Your task to perform on an android device: Go to Android settings Image 0: 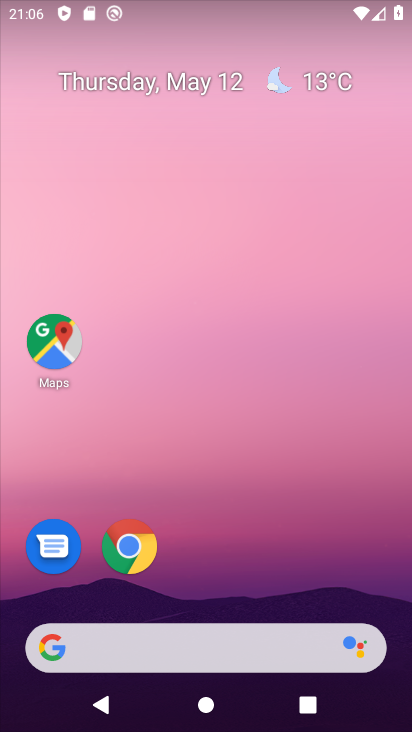
Step 0: click (147, 543)
Your task to perform on an android device: Go to Android settings Image 1: 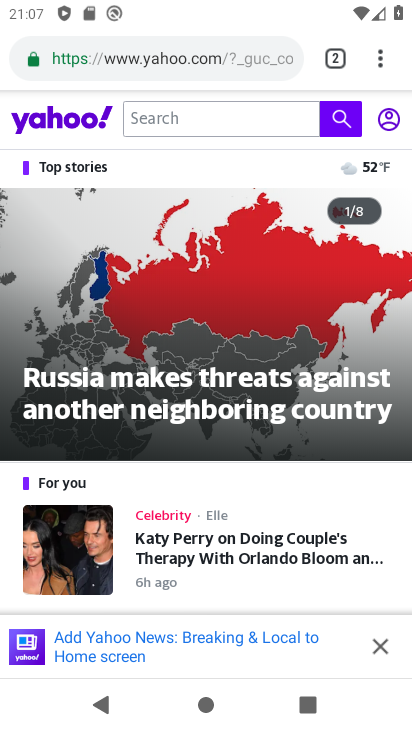
Step 1: drag from (380, 57) to (267, 558)
Your task to perform on an android device: Go to Android settings Image 2: 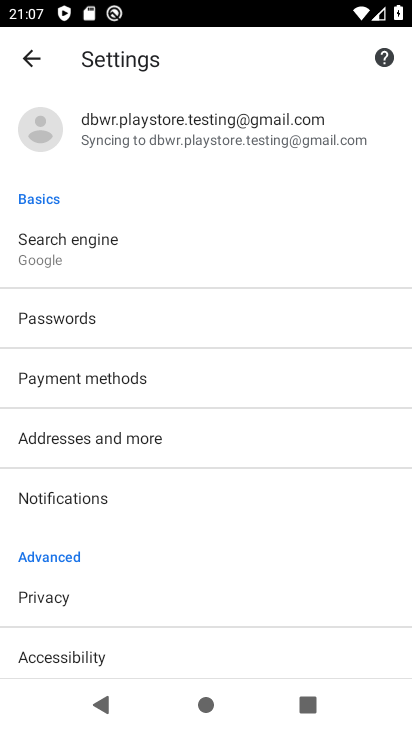
Step 2: drag from (270, 632) to (292, 236)
Your task to perform on an android device: Go to Android settings Image 3: 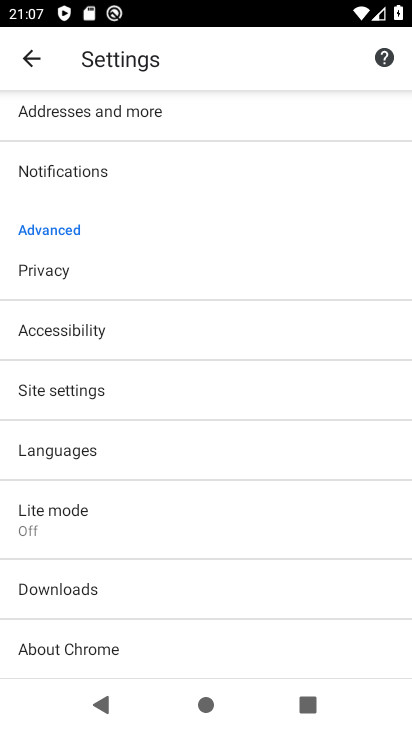
Step 3: drag from (222, 611) to (266, 200)
Your task to perform on an android device: Go to Android settings Image 4: 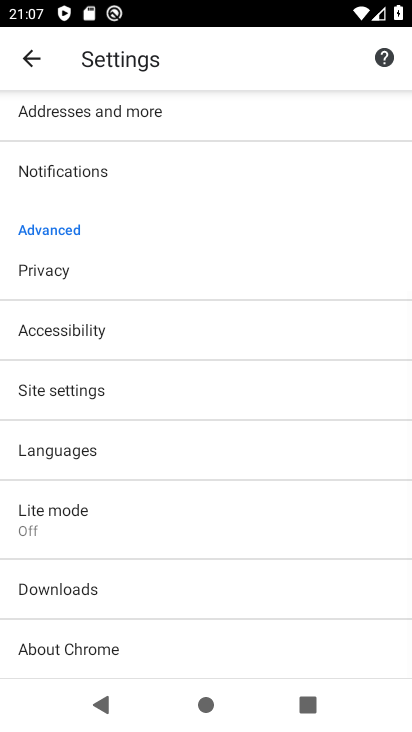
Step 4: drag from (183, 654) to (216, 254)
Your task to perform on an android device: Go to Android settings Image 5: 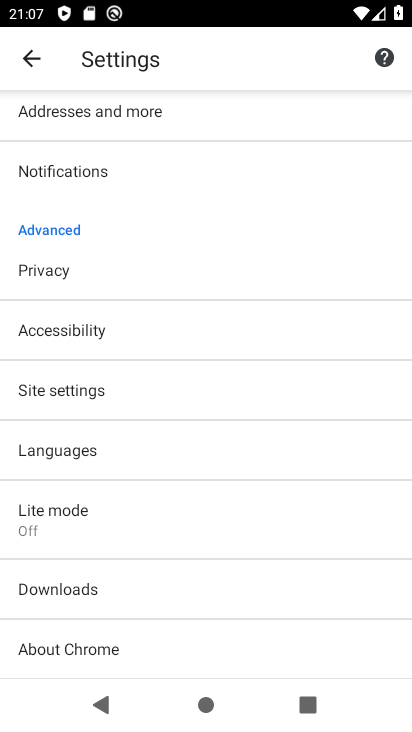
Step 5: drag from (174, 634) to (242, 285)
Your task to perform on an android device: Go to Android settings Image 6: 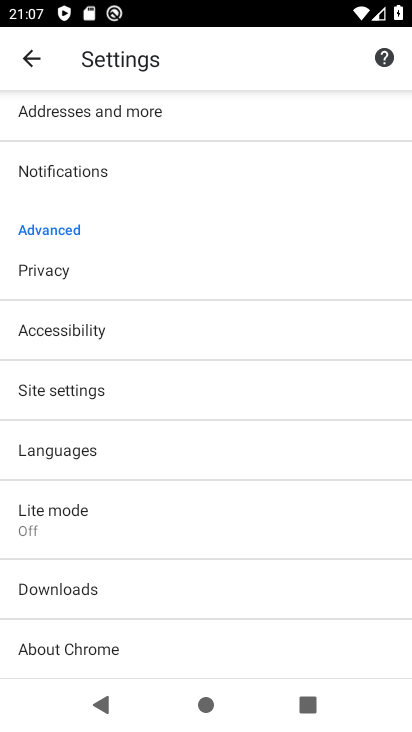
Step 6: press home button
Your task to perform on an android device: Go to Android settings Image 7: 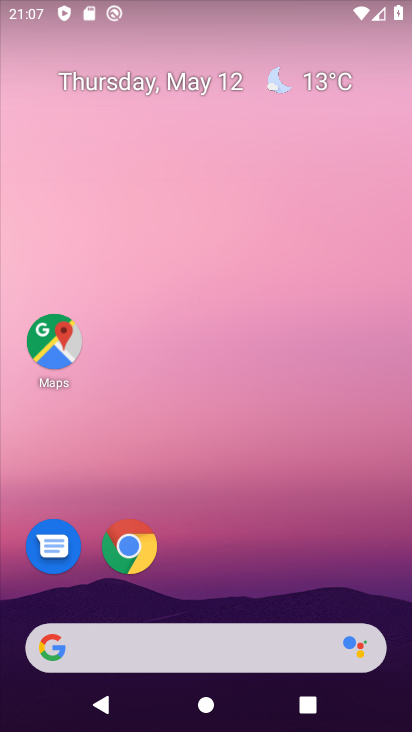
Step 7: drag from (292, 570) to (322, 151)
Your task to perform on an android device: Go to Android settings Image 8: 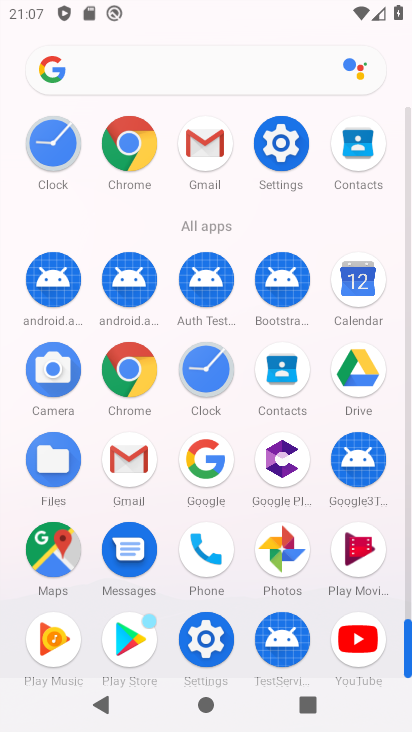
Step 8: click (285, 155)
Your task to perform on an android device: Go to Android settings Image 9: 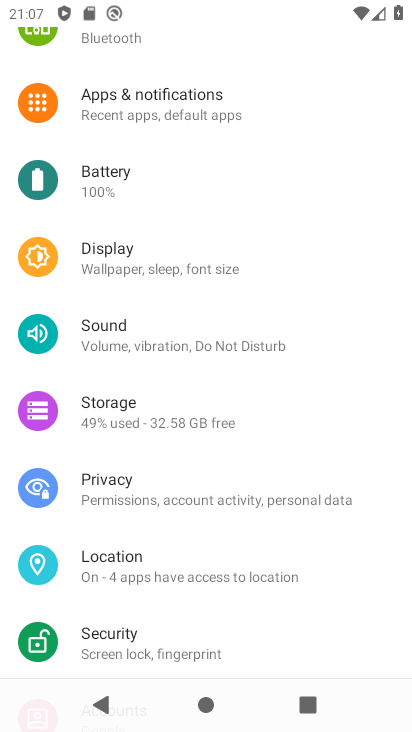
Step 9: drag from (316, 606) to (331, 154)
Your task to perform on an android device: Go to Android settings Image 10: 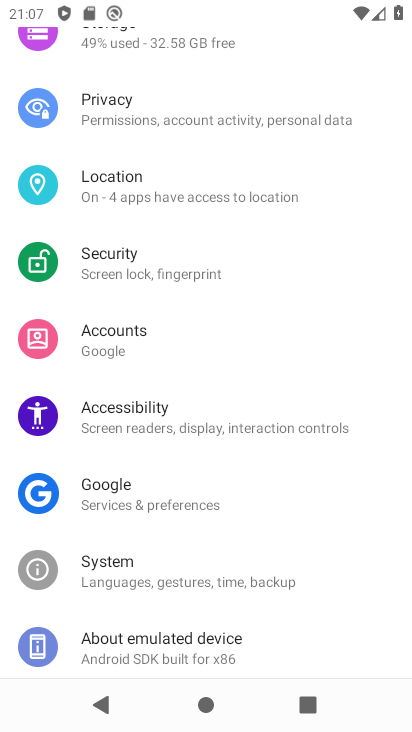
Step 10: click (157, 643)
Your task to perform on an android device: Go to Android settings Image 11: 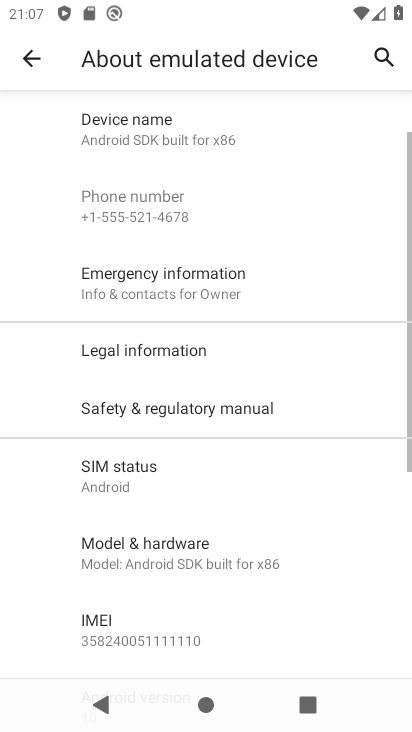
Step 11: drag from (320, 648) to (364, 203)
Your task to perform on an android device: Go to Android settings Image 12: 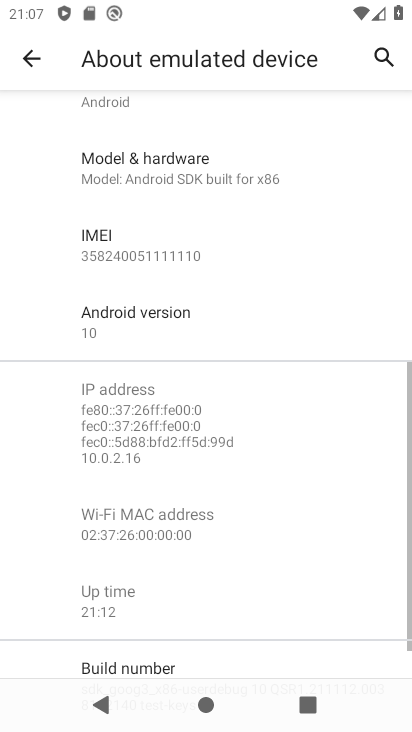
Step 12: drag from (277, 616) to (326, 251)
Your task to perform on an android device: Go to Android settings Image 13: 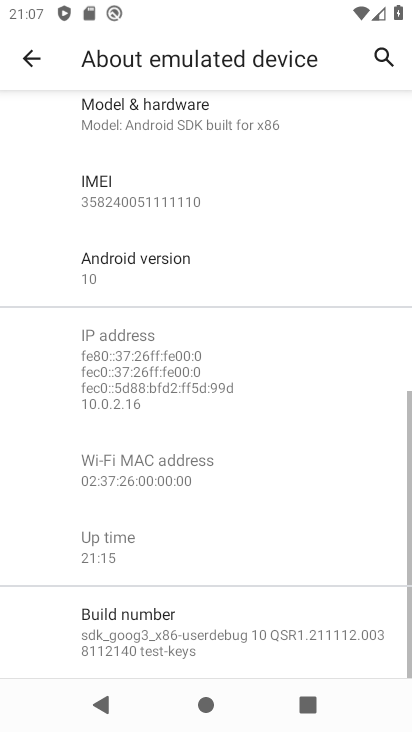
Step 13: click (161, 256)
Your task to perform on an android device: Go to Android settings Image 14: 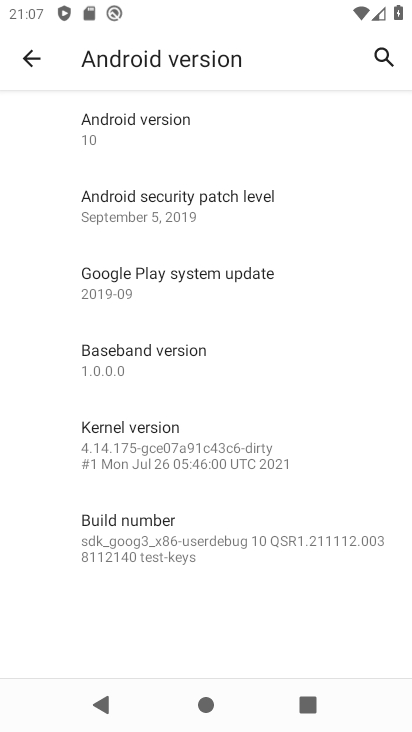
Step 14: task complete